Your task to perform on an android device: set default search engine in the chrome app Image 0: 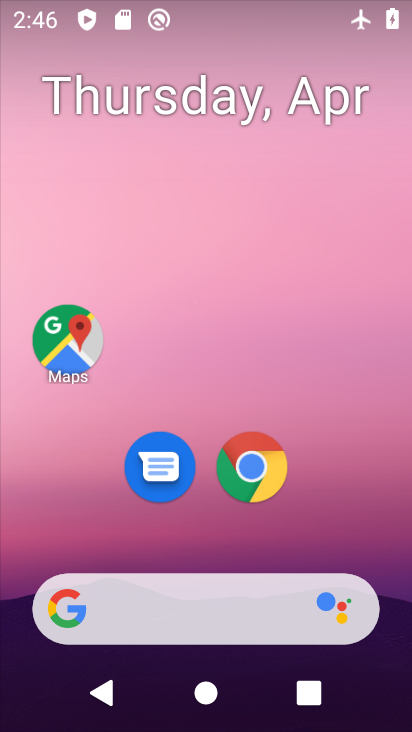
Step 0: click (265, 466)
Your task to perform on an android device: set default search engine in the chrome app Image 1: 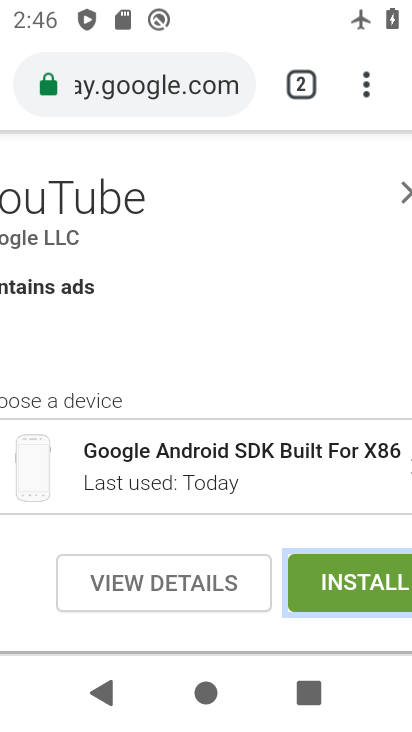
Step 1: drag from (368, 91) to (231, 518)
Your task to perform on an android device: set default search engine in the chrome app Image 2: 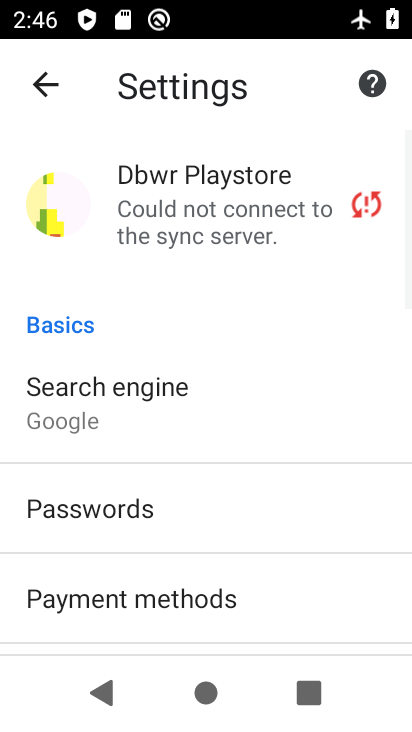
Step 2: click (160, 410)
Your task to perform on an android device: set default search engine in the chrome app Image 3: 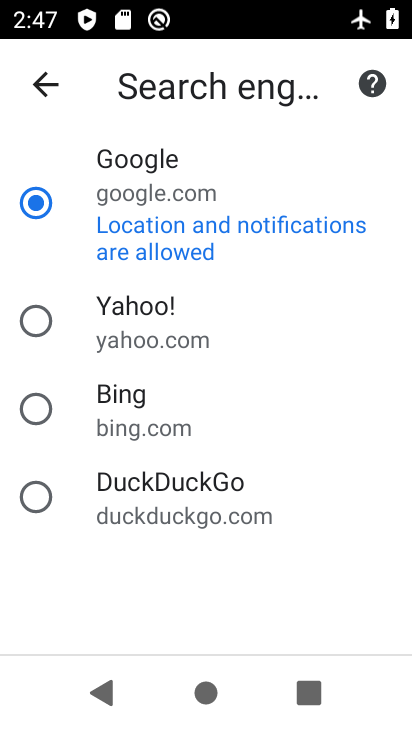
Step 3: task complete